Your task to perform on an android device: turn off location Image 0: 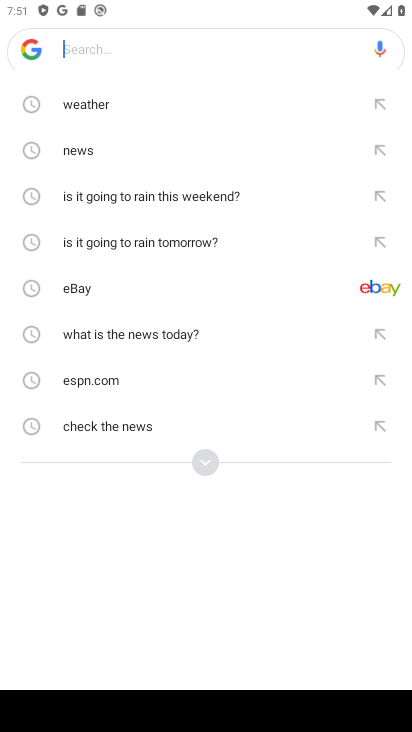
Step 0: press home button
Your task to perform on an android device: turn off location Image 1: 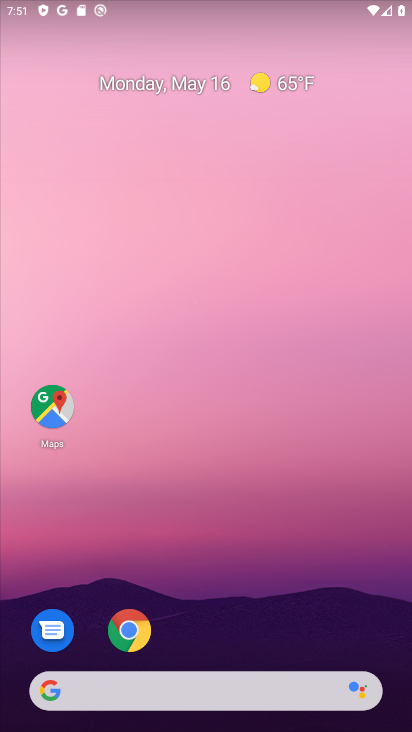
Step 1: drag from (229, 601) to (295, 101)
Your task to perform on an android device: turn off location Image 2: 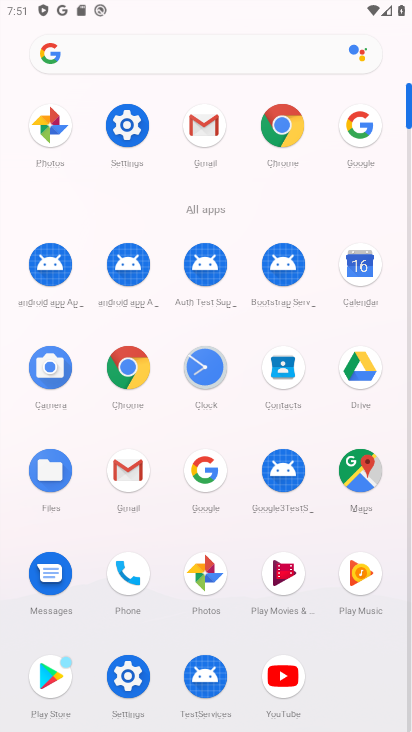
Step 2: click (124, 144)
Your task to perform on an android device: turn off location Image 3: 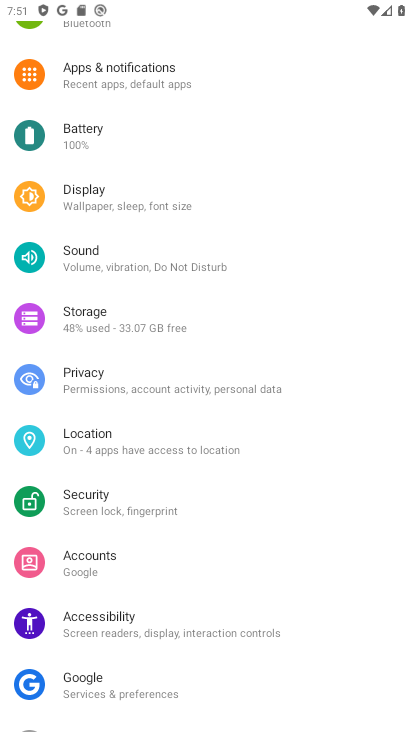
Step 3: drag from (182, 138) to (192, 345)
Your task to perform on an android device: turn off location Image 4: 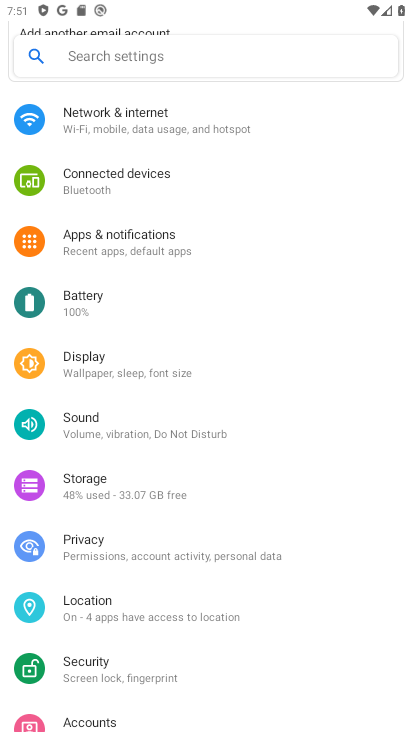
Step 4: click (147, 614)
Your task to perform on an android device: turn off location Image 5: 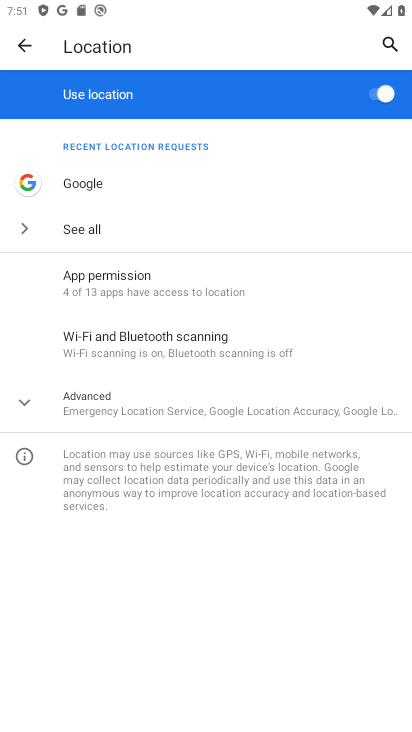
Step 5: click (363, 89)
Your task to perform on an android device: turn off location Image 6: 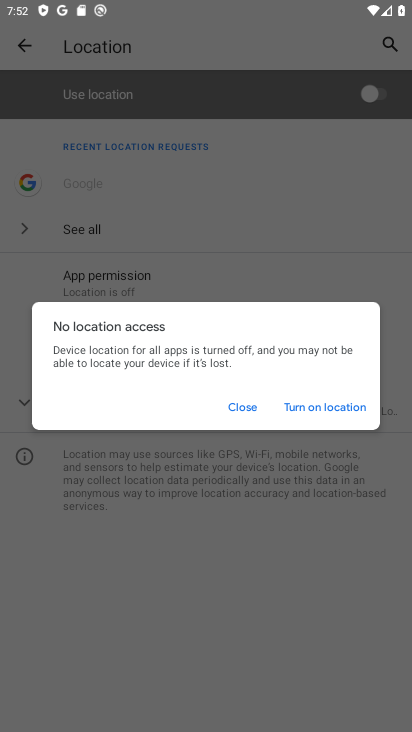
Step 6: task complete